Your task to perform on an android device: Go to Android settings Image 0: 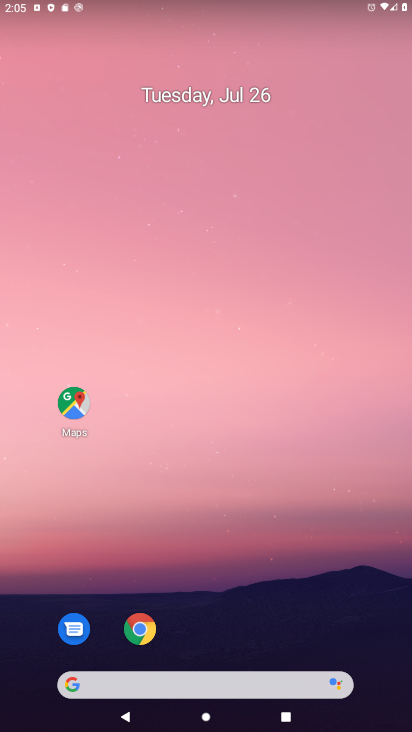
Step 0: drag from (401, 665) to (307, 197)
Your task to perform on an android device: Go to Android settings Image 1: 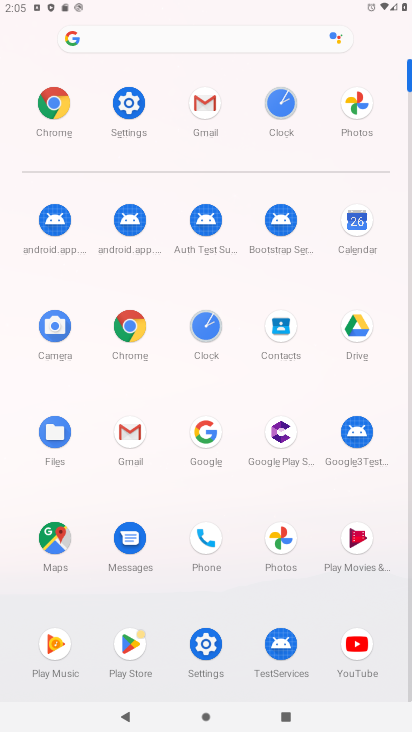
Step 1: click (206, 642)
Your task to perform on an android device: Go to Android settings Image 2: 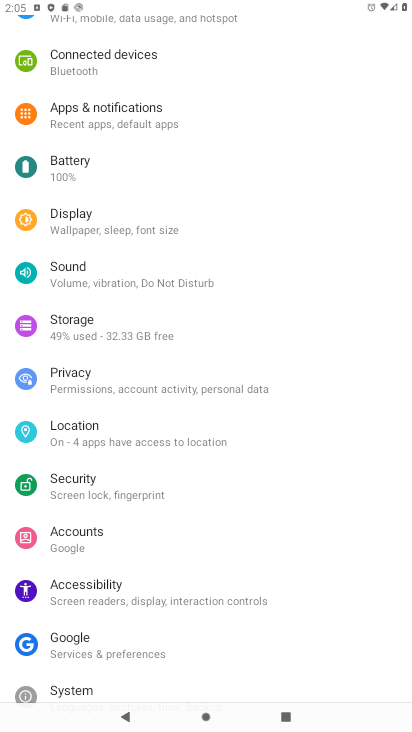
Step 2: drag from (303, 654) to (289, 259)
Your task to perform on an android device: Go to Android settings Image 3: 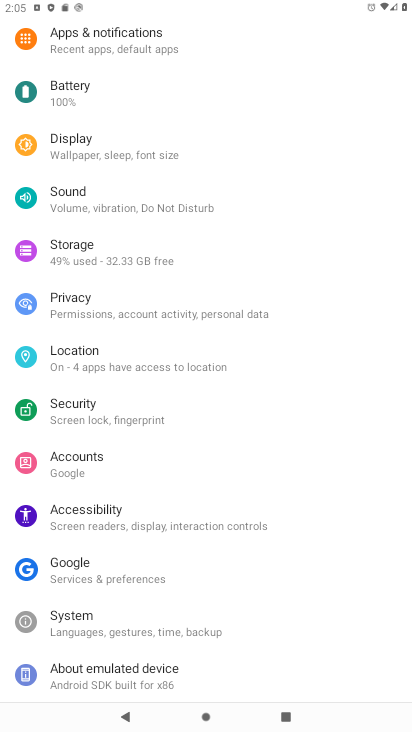
Step 3: click (132, 665)
Your task to perform on an android device: Go to Android settings Image 4: 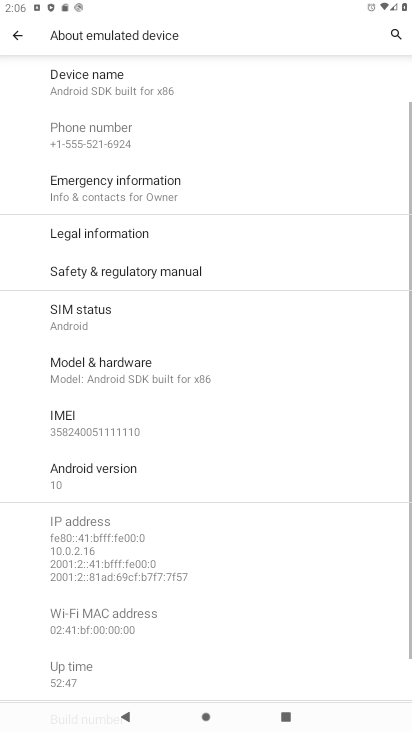
Step 4: task complete